Your task to perform on an android device: change alarm snooze length Image 0: 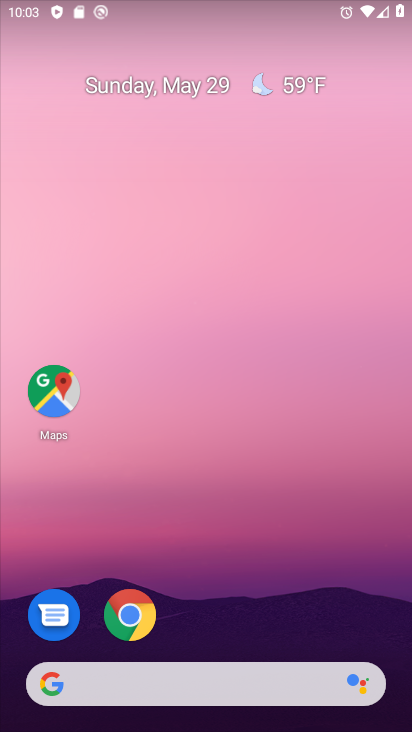
Step 0: drag from (251, 608) to (138, 91)
Your task to perform on an android device: change alarm snooze length Image 1: 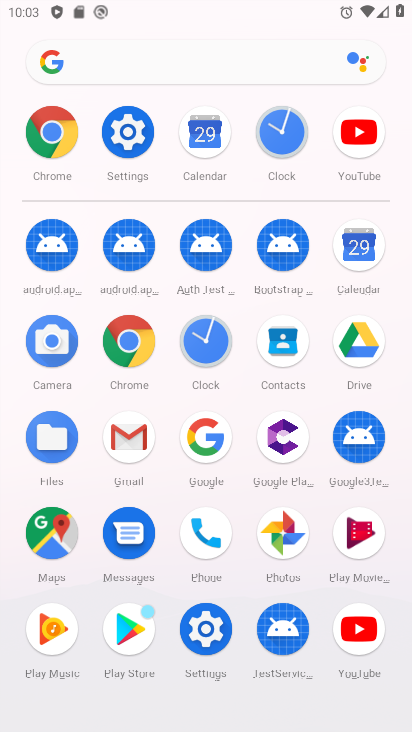
Step 1: click (280, 127)
Your task to perform on an android device: change alarm snooze length Image 2: 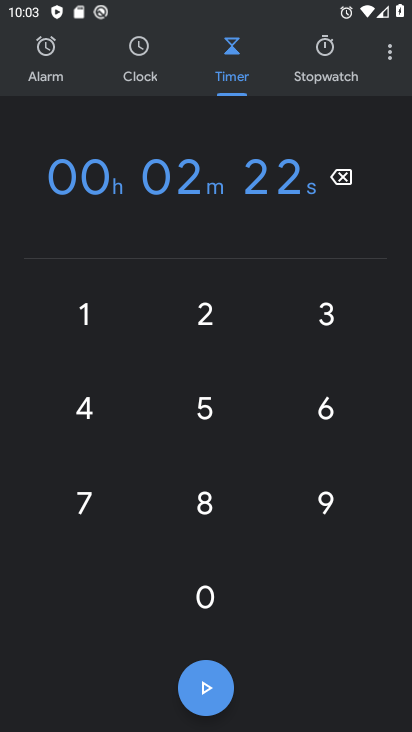
Step 2: click (384, 57)
Your task to perform on an android device: change alarm snooze length Image 3: 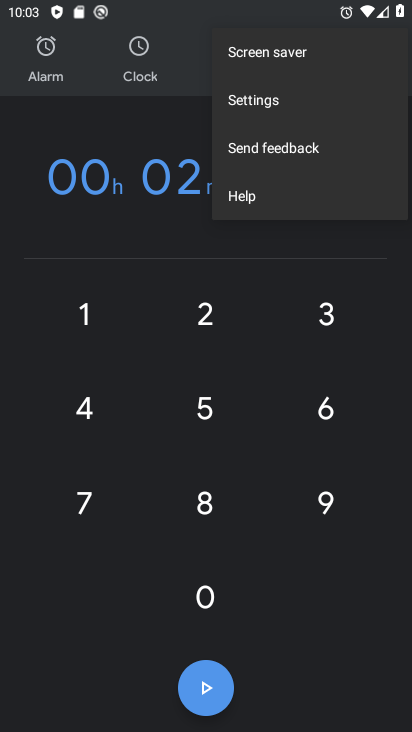
Step 3: click (257, 99)
Your task to perform on an android device: change alarm snooze length Image 4: 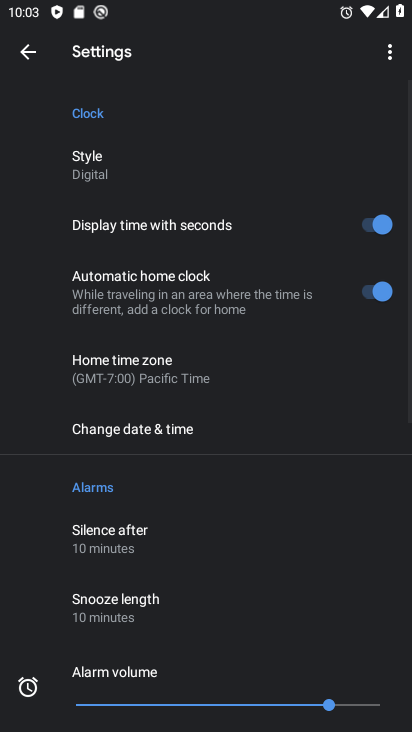
Step 4: click (140, 609)
Your task to perform on an android device: change alarm snooze length Image 5: 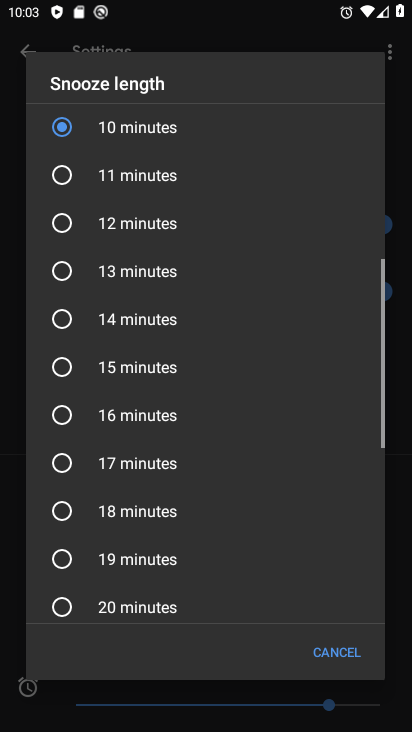
Step 5: click (62, 418)
Your task to perform on an android device: change alarm snooze length Image 6: 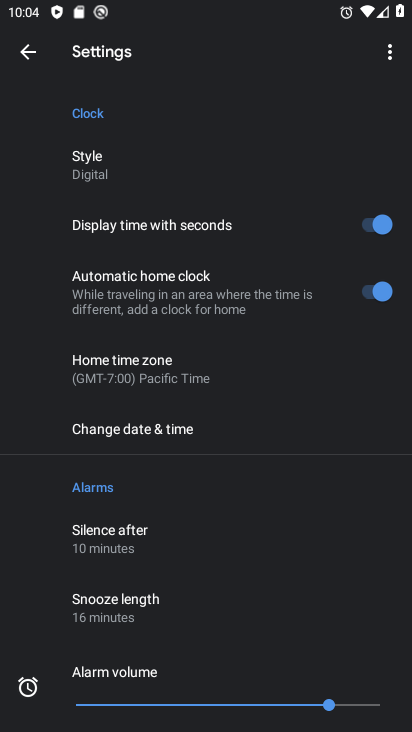
Step 6: task complete